Your task to perform on an android device: turn off airplane mode Image 0: 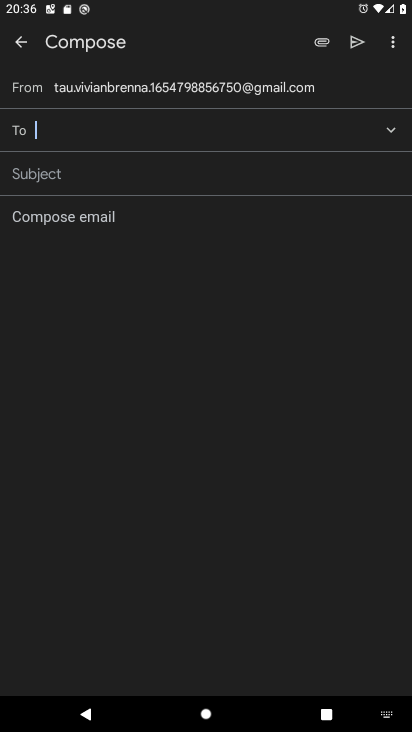
Step 0: press home button
Your task to perform on an android device: turn off airplane mode Image 1: 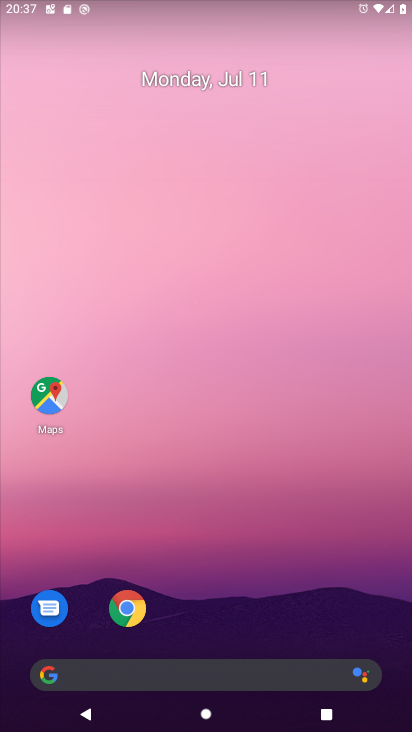
Step 1: drag from (231, 632) to (219, 73)
Your task to perform on an android device: turn off airplane mode Image 2: 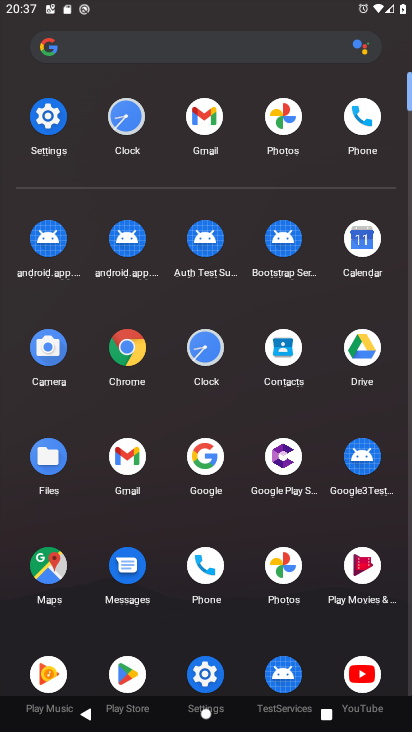
Step 2: click (188, 137)
Your task to perform on an android device: turn off airplane mode Image 3: 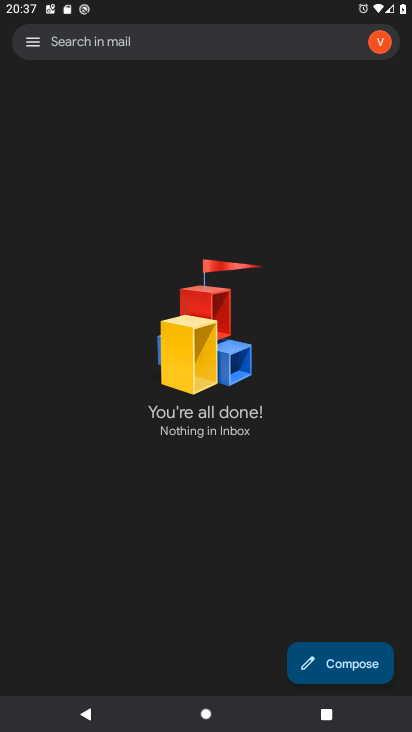
Step 3: click (36, 46)
Your task to perform on an android device: turn off airplane mode Image 4: 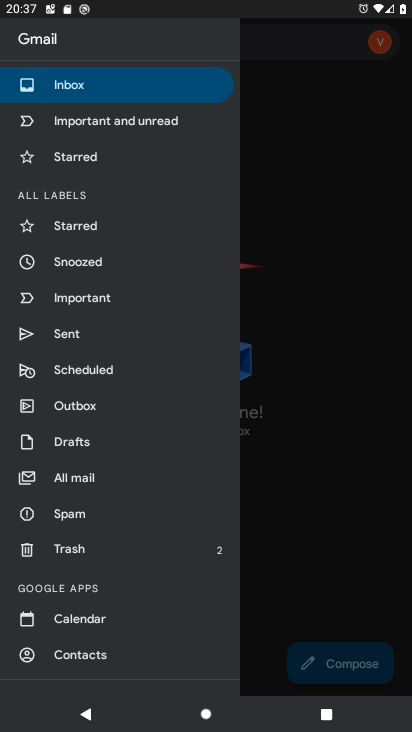
Step 4: click (58, 596)
Your task to perform on an android device: turn off airplane mode Image 5: 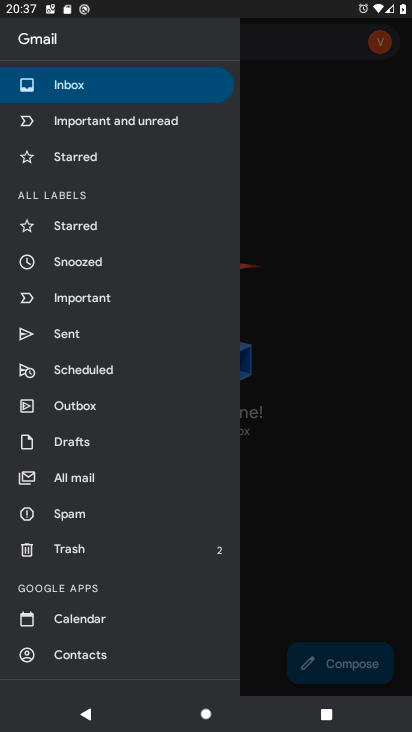
Step 5: drag from (58, 596) to (58, 503)
Your task to perform on an android device: turn off airplane mode Image 6: 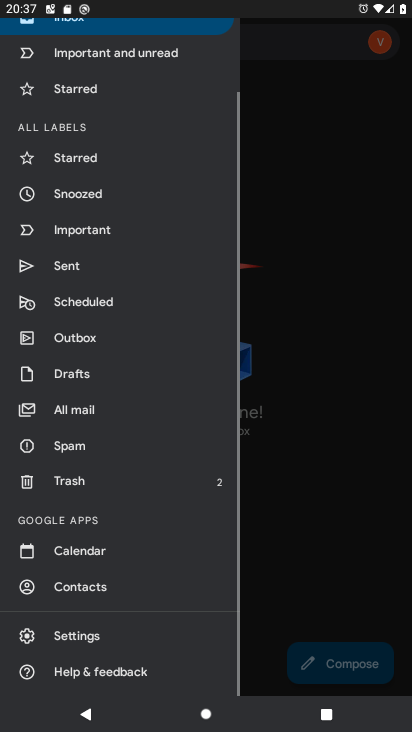
Step 6: press home button
Your task to perform on an android device: turn off airplane mode Image 7: 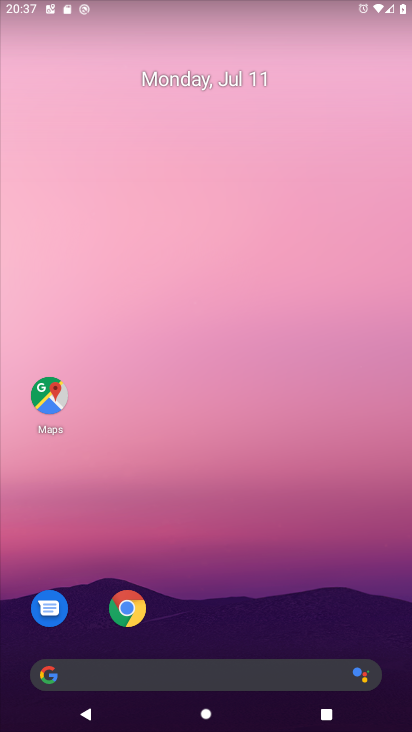
Step 7: drag from (204, 588) to (300, 50)
Your task to perform on an android device: turn off airplane mode Image 8: 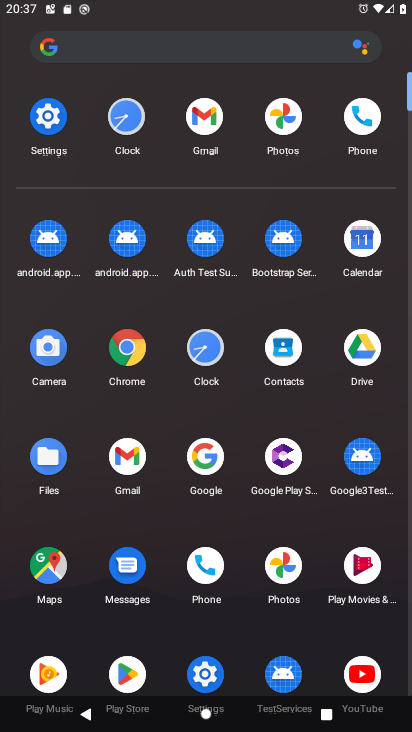
Step 8: click (138, 125)
Your task to perform on an android device: turn off airplane mode Image 9: 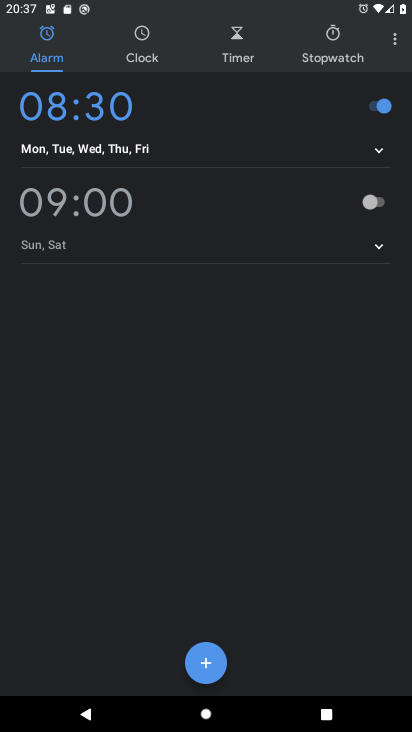
Step 9: press back button
Your task to perform on an android device: turn off airplane mode Image 10: 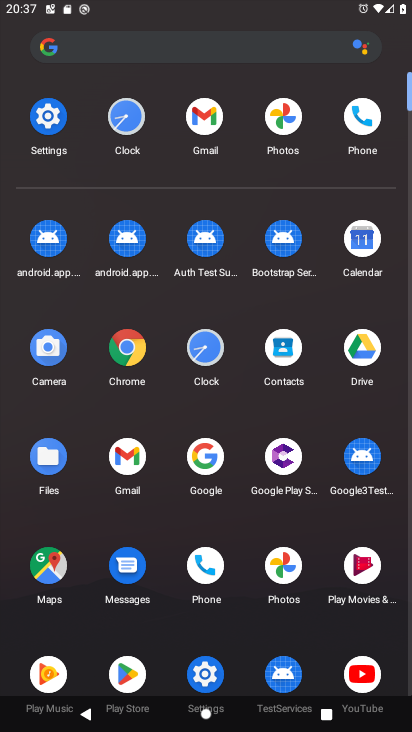
Step 10: click (49, 125)
Your task to perform on an android device: turn off airplane mode Image 11: 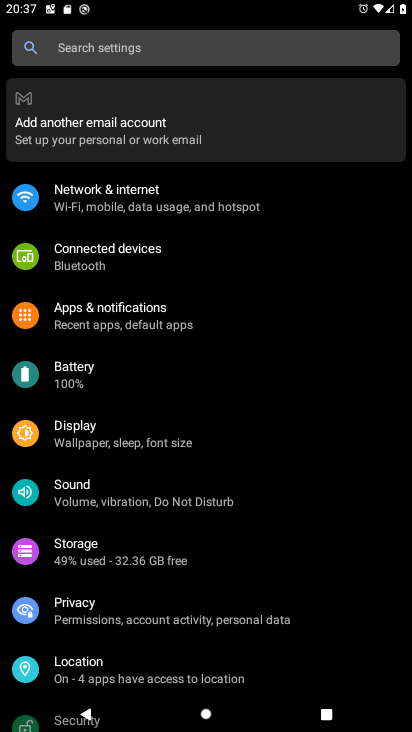
Step 11: click (74, 197)
Your task to perform on an android device: turn off airplane mode Image 12: 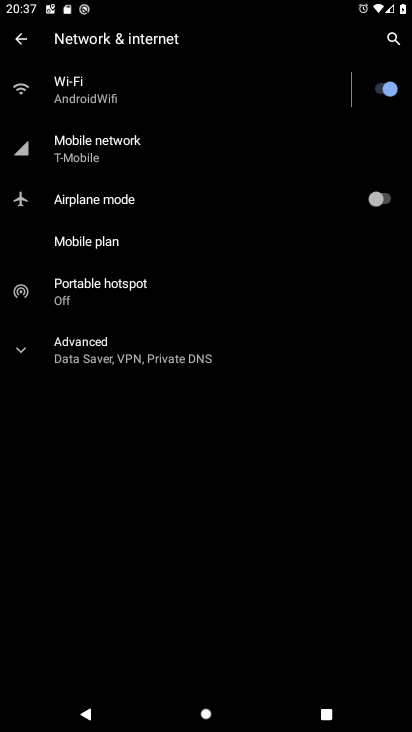
Step 12: task complete